Your task to perform on an android device: Open Maps and search for coffee Image 0: 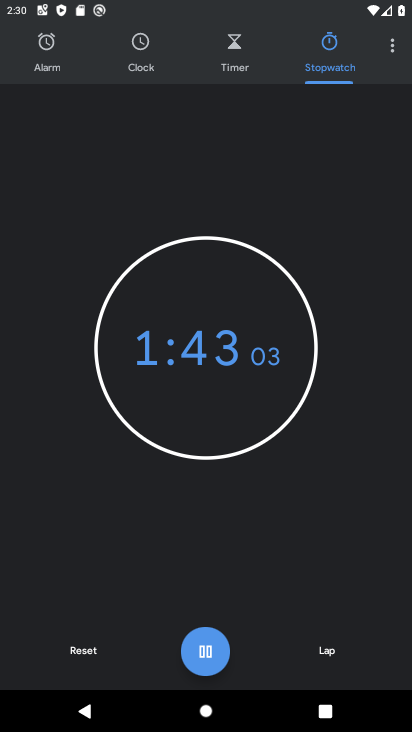
Step 0: press home button
Your task to perform on an android device: Open Maps and search for coffee Image 1: 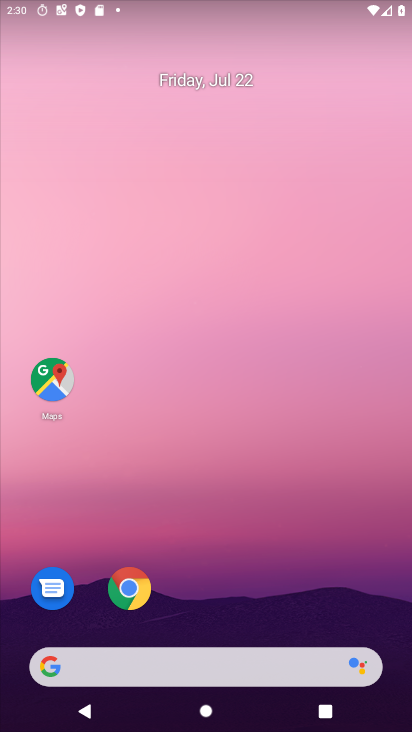
Step 1: click (56, 373)
Your task to perform on an android device: Open Maps and search for coffee Image 2: 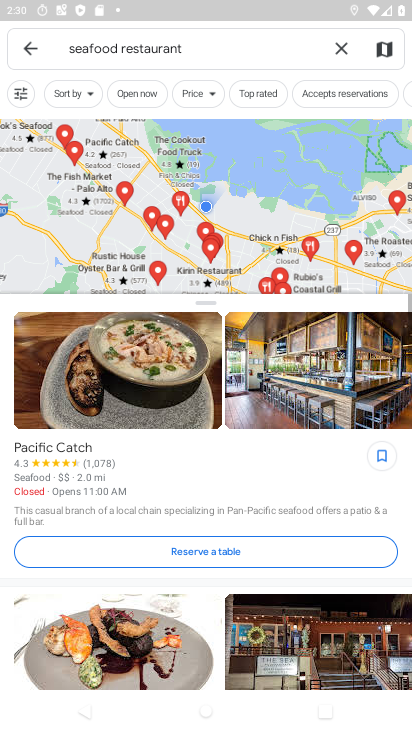
Step 2: click (336, 46)
Your task to perform on an android device: Open Maps and search for coffee Image 3: 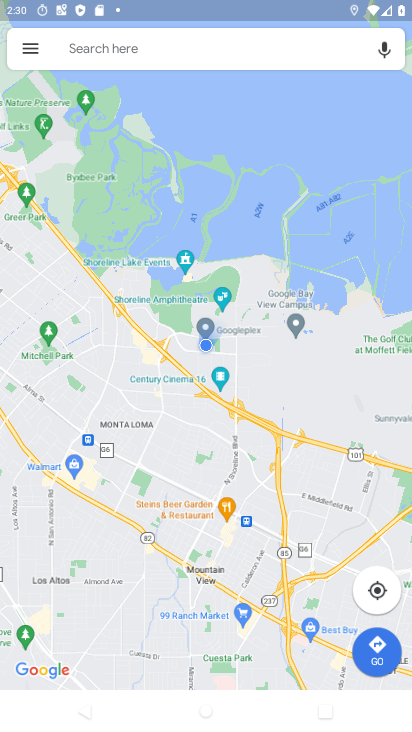
Step 3: click (97, 49)
Your task to perform on an android device: Open Maps and search for coffee Image 4: 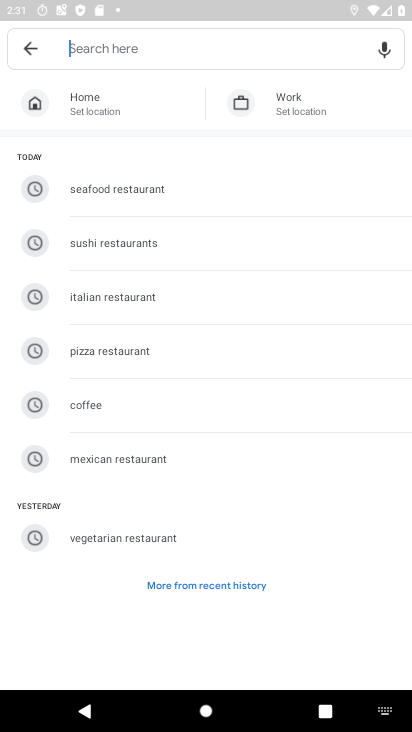
Step 4: click (103, 399)
Your task to perform on an android device: Open Maps and search for coffee Image 5: 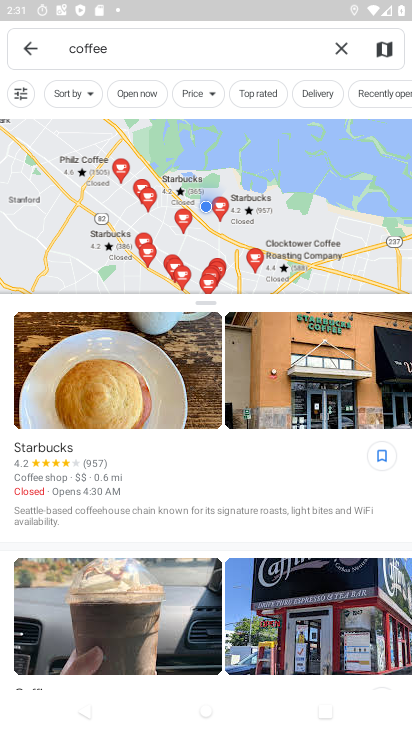
Step 5: task complete